Your task to perform on an android device: turn smart compose on in the gmail app Image 0: 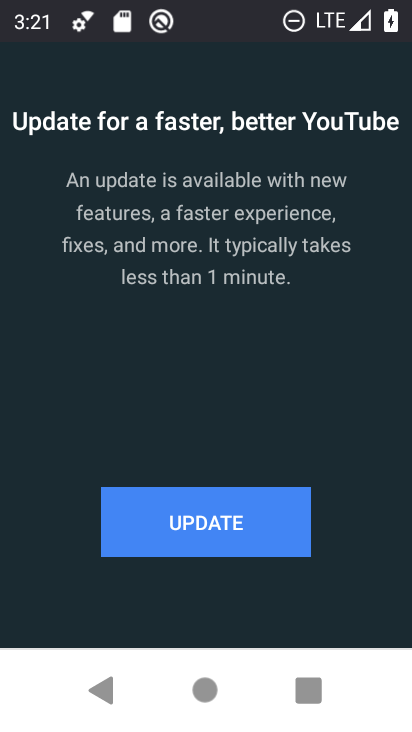
Step 0: press home button
Your task to perform on an android device: turn smart compose on in the gmail app Image 1: 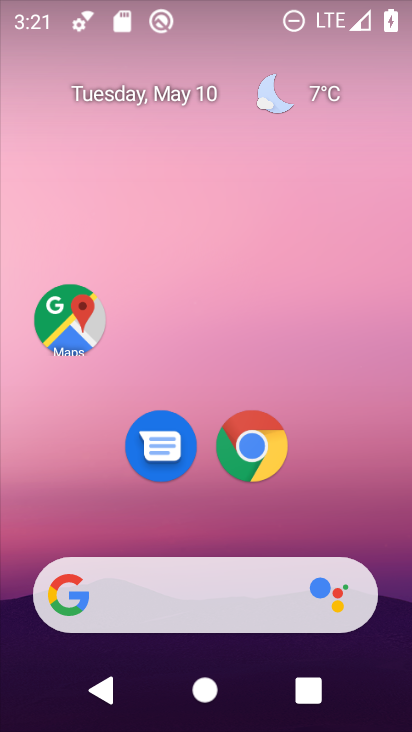
Step 1: drag from (217, 521) to (183, 120)
Your task to perform on an android device: turn smart compose on in the gmail app Image 2: 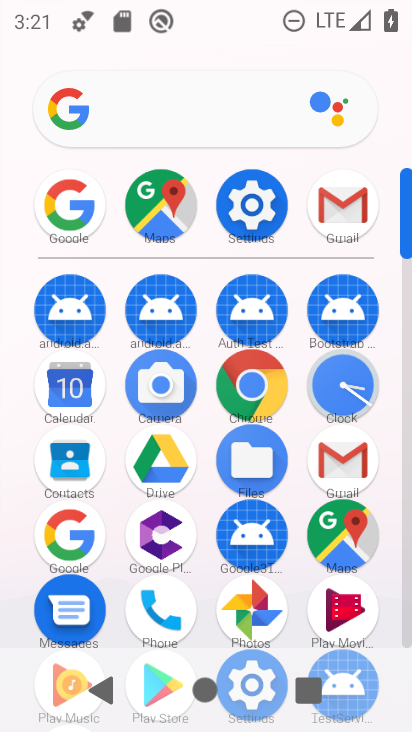
Step 2: click (345, 455)
Your task to perform on an android device: turn smart compose on in the gmail app Image 3: 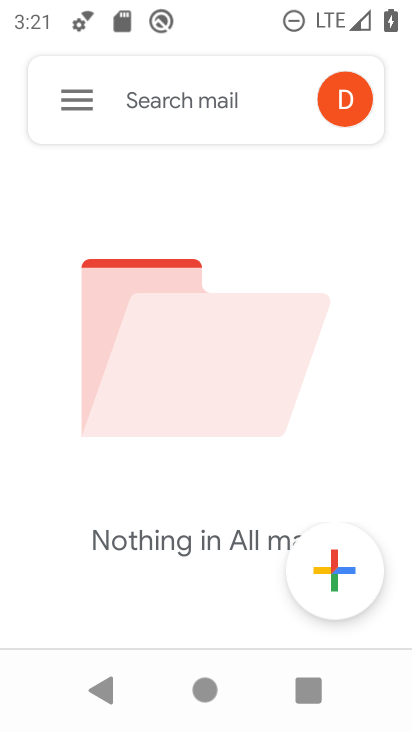
Step 3: click (79, 96)
Your task to perform on an android device: turn smart compose on in the gmail app Image 4: 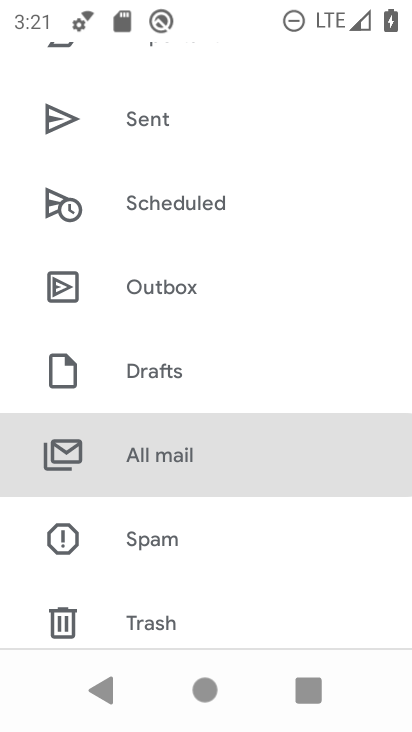
Step 4: drag from (247, 541) to (232, 194)
Your task to perform on an android device: turn smart compose on in the gmail app Image 5: 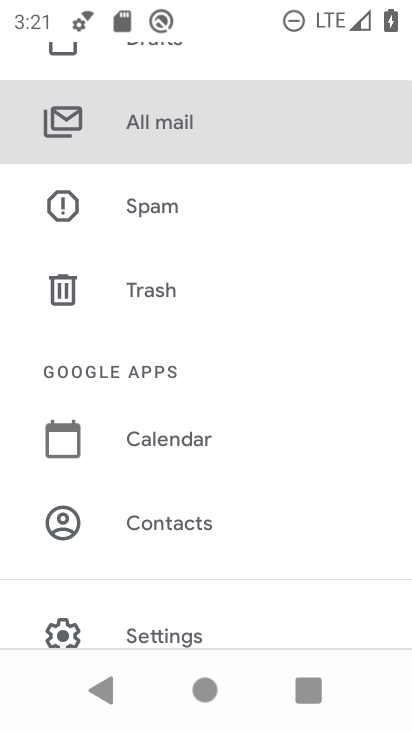
Step 5: click (217, 628)
Your task to perform on an android device: turn smart compose on in the gmail app Image 6: 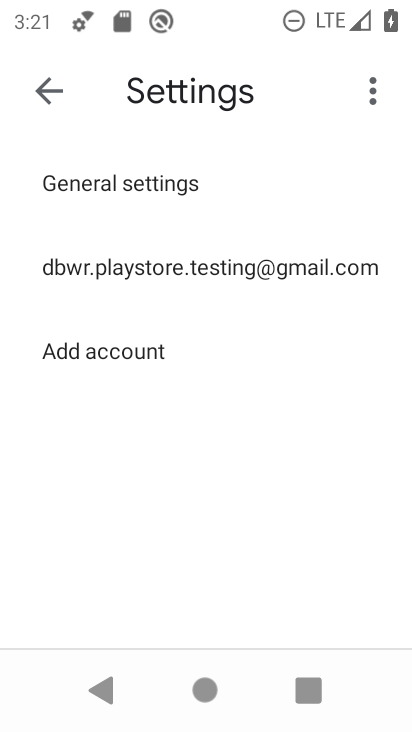
Step 6: click (169, 272)
Your task to perform on an android device: turn smart compose on in the gmail app Image 7: 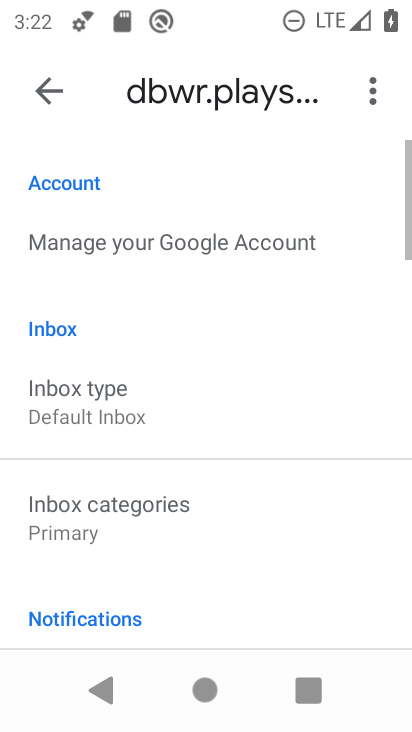
Step 7: task complete